Your task to perform on an android device: toggle airplane mode Image 0: 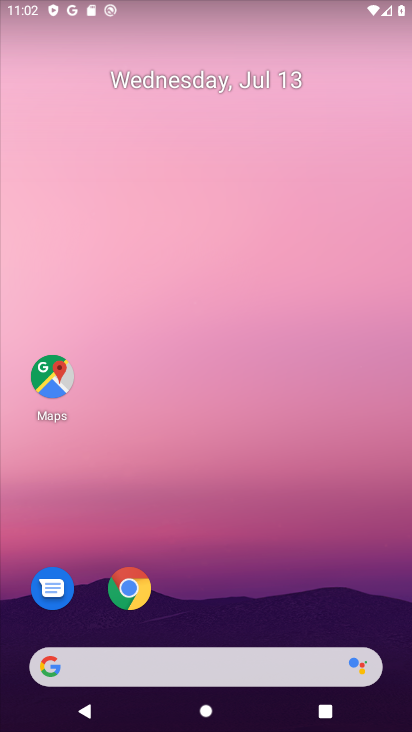
Step 0: drag from (224, 590) to (221, 109)
Your task to perform on an android device: toggle airplane mode Image 1: 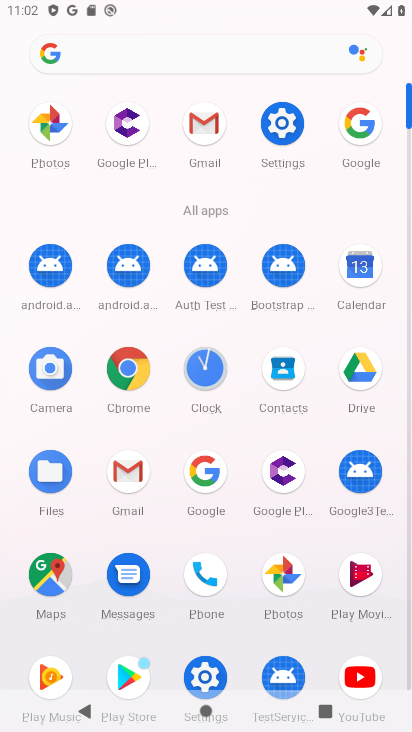
Step 1: click (281, 126)
Your task to perform on an android device: toggle airplane mode Image 2: 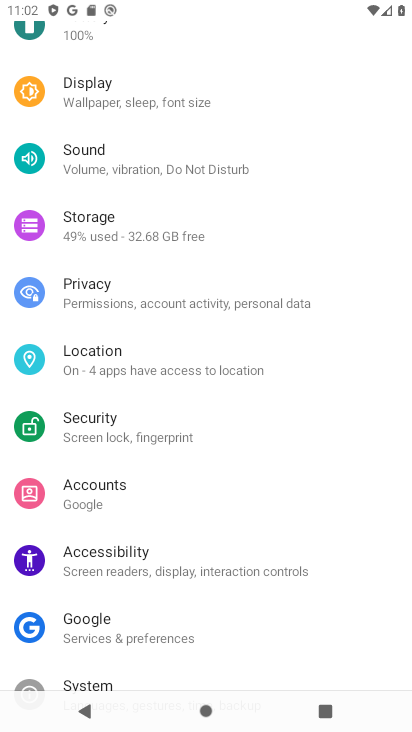
Step 2: drag from (132, 134) to (191, 590)
Your task to perform on an android device: toggle airplane mode Image 3: 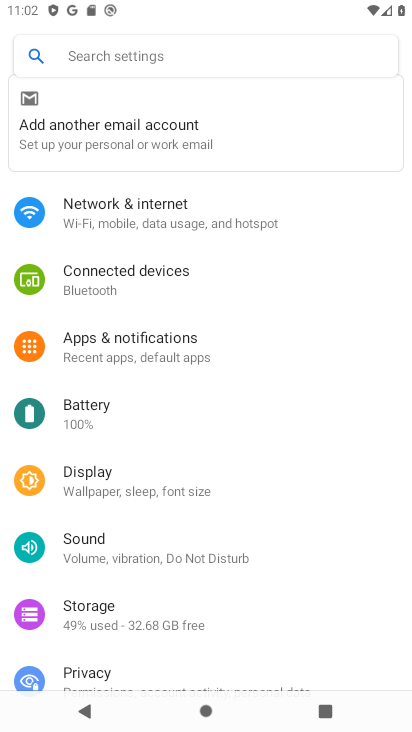
Step 3: click (154, 205)
Your task to perform on an android device: toggle airplane mode Image 4: 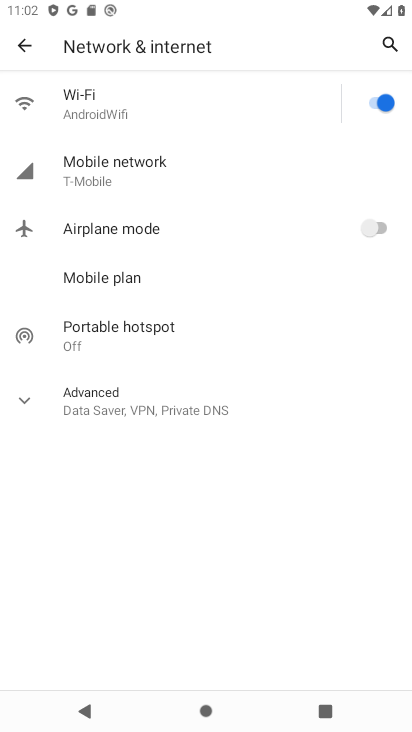
Step 4: click (376, 227)
Your task to perform on an android device: toggle airplane mode Image 5: 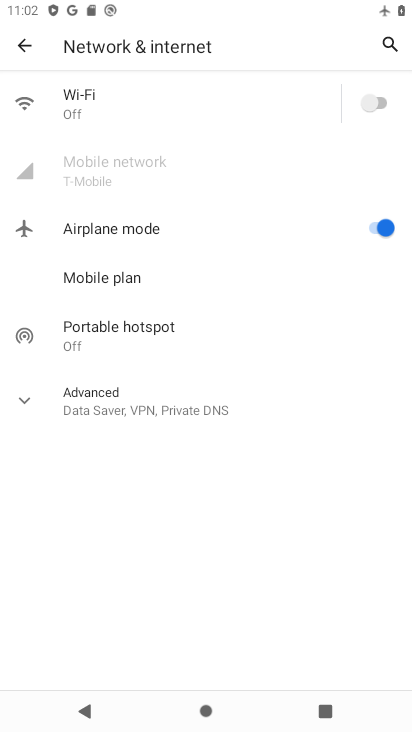
Step 5: task complete